Your task to perform on an android device: Open privacy settings Image 0: 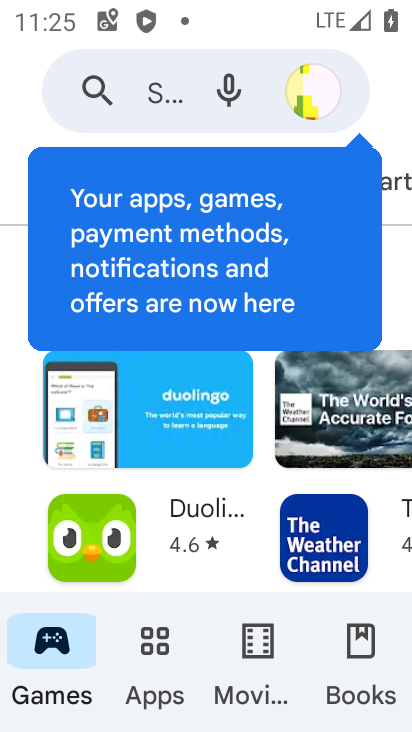
Step 0: press home button
Your task to perform on an android device: Open privacy settings Image 1: 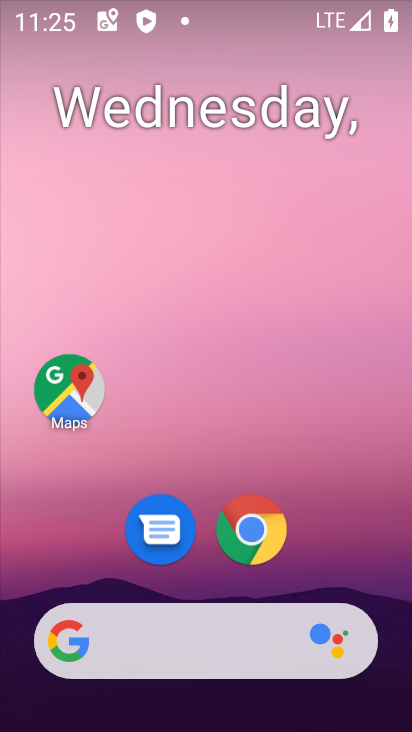
Step 1: drag from (181, 592) to (191, 11)
Your task to perform on an android device: Open privacy settings Image 2: 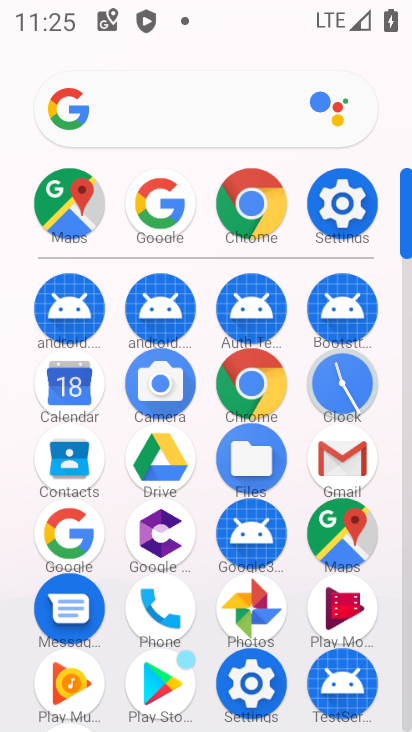
Step 2: click (245, 671)
Your task to perform on an android device: Open privacy settings Image 3: 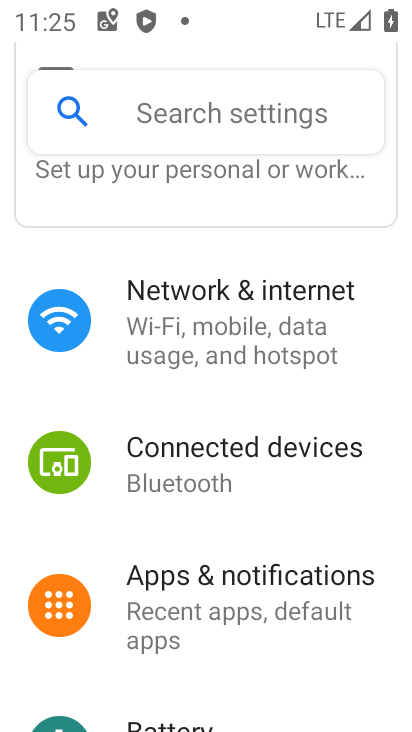
Step 3: drag from (213, 587) to (139, 149)
Your task to perform on an android device: Open privacy settings Image 4: 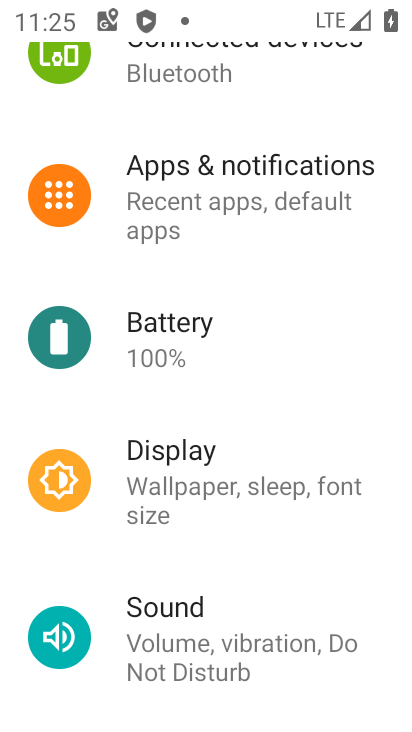
Step 4: drag from (209, 577) to (154, 218)
Your task to perform on an android device: Open privacy settings Image 5: 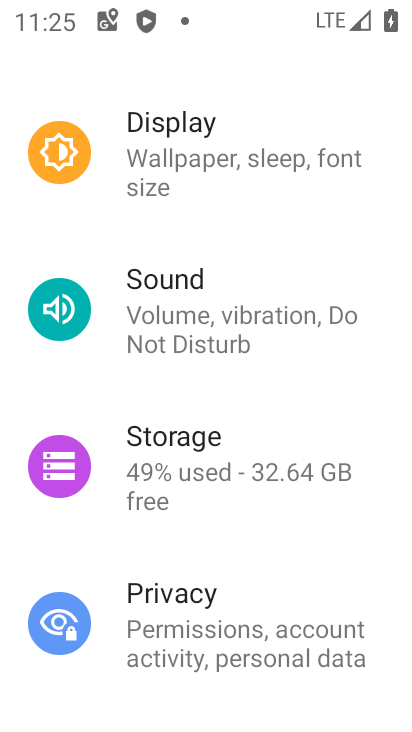
Step 5: click (184, 582)
Your task to perform on an android device: Open privacy settings Image 6: 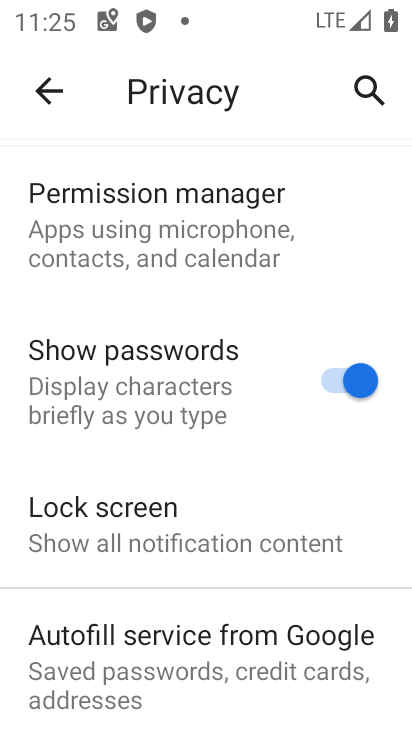
Step 6: task complete